Your task to perform on an android device: open a new tab in the chrome app Image 0: 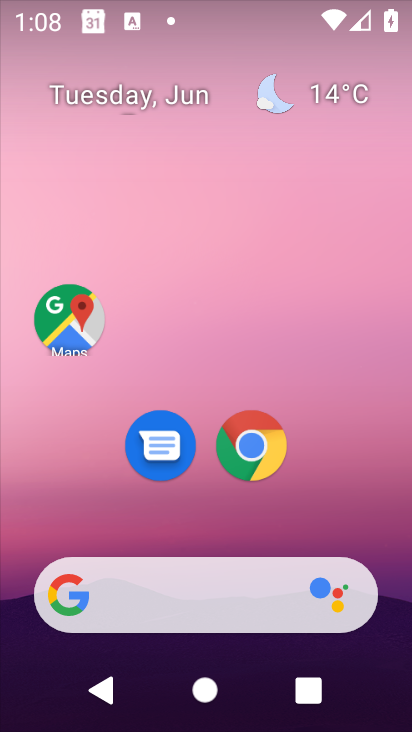
Step 0: click (251, 461)
Your task to perform on an android device: open a new tab in the chrome app Image 1: 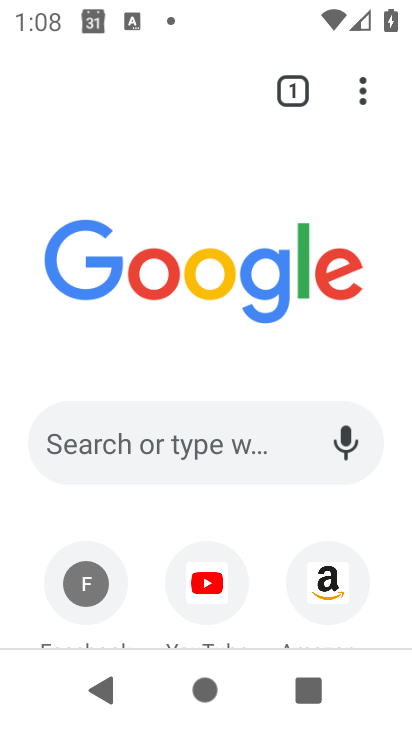
Step 1: click (367, 95)
Your task to perform on an android device: open a new tab in the chrome app Image 2: 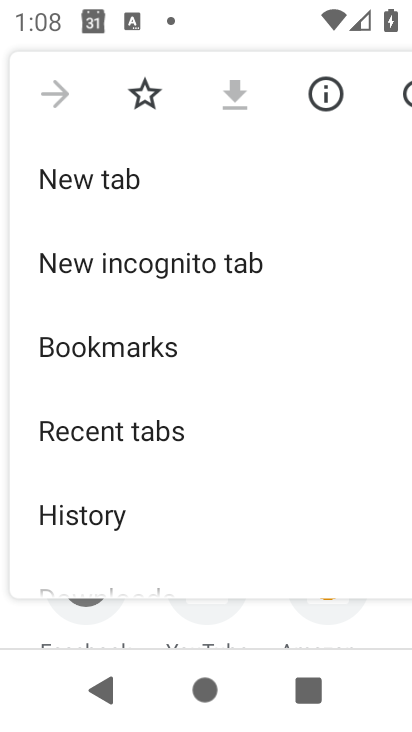
Step 2: click (111, 169)
Your task to perform on an android device: open a new tab in the chrome app Image 3: 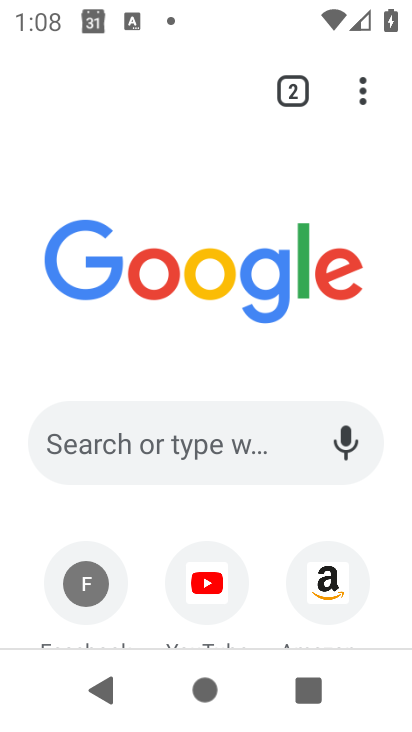
Step 3: task complete